Your task to perform on an android device: toggle airplane mode Image 0: 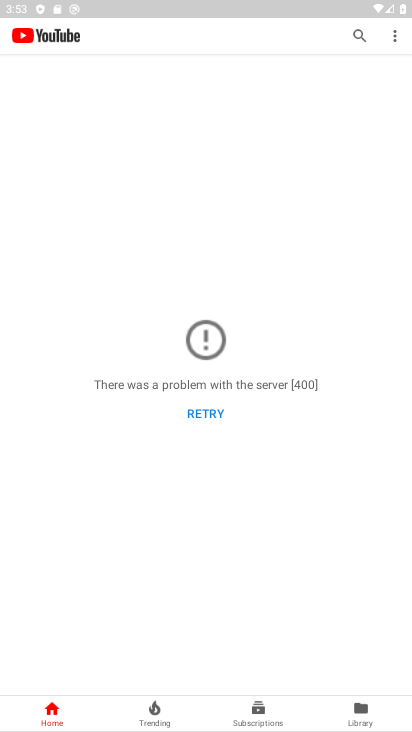
Step 0: press back button
Your task to perform on an android device: toggle airplane mode Image 1: 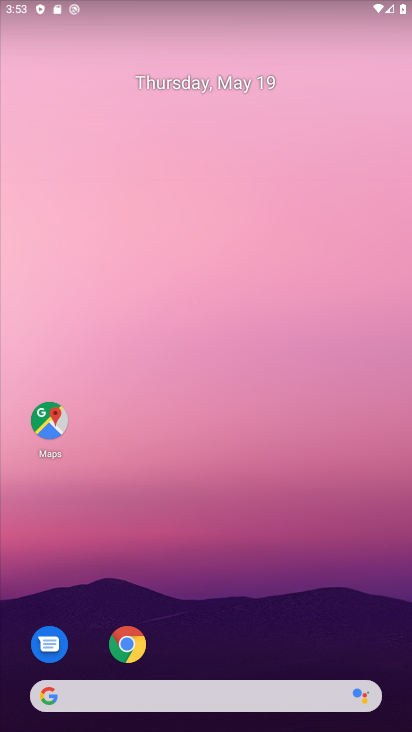
Step 1: drag from (270, 468) to (238, 8)
Your task to perform on an android device: toggle airplane mode Image 2: 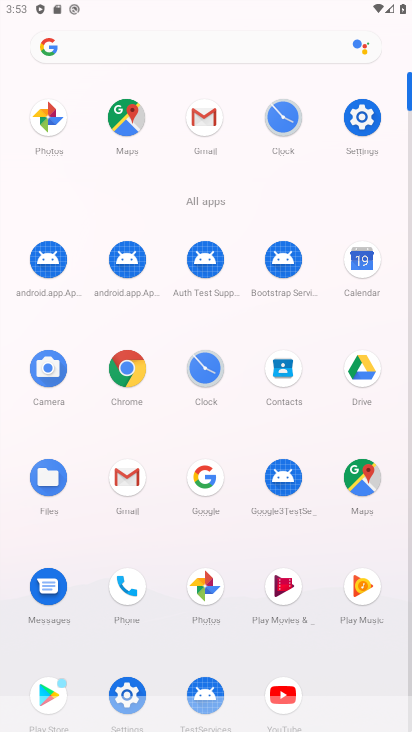
Step 2: drag from (1, 595) to (1, 329)
Your task to perform on an android device: toggle airplane mode Image 3: 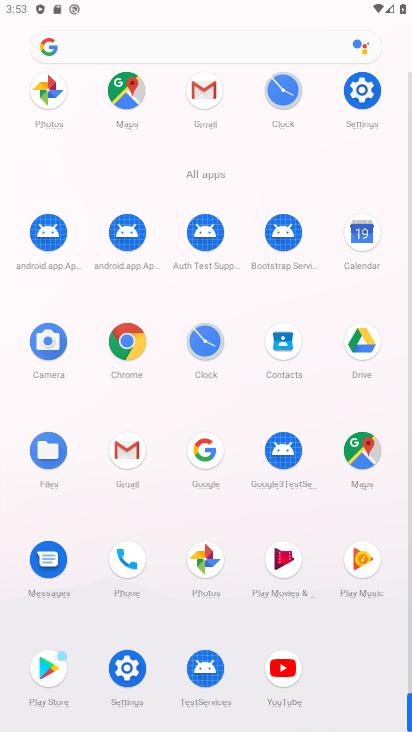
Step 3: click (126, 667)
Your task to perform on an android device: toggle airplane mode Image 4: 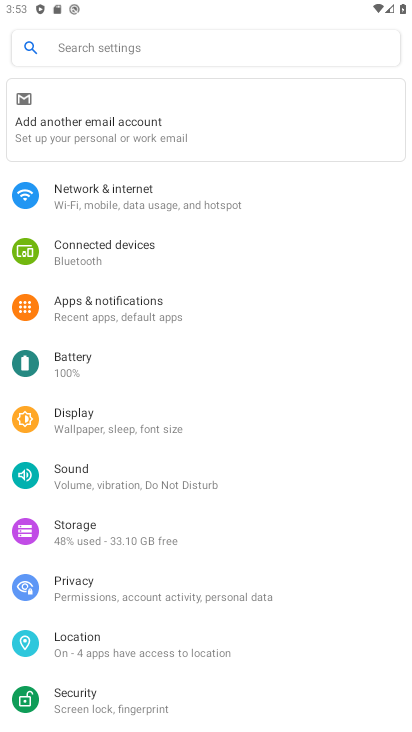
Step 4: click (141, 190)
Your task to perform on an android device: toggle airplane mode Image 5: 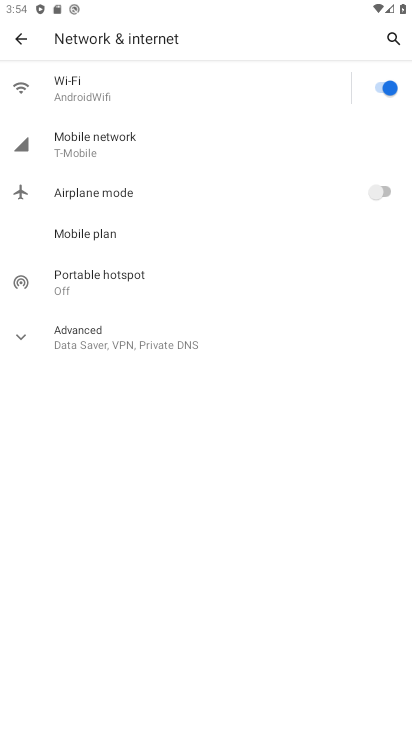
Step 5: click (36, 332)
Your task to perform on an android device: toggle airplane mode Image 6: 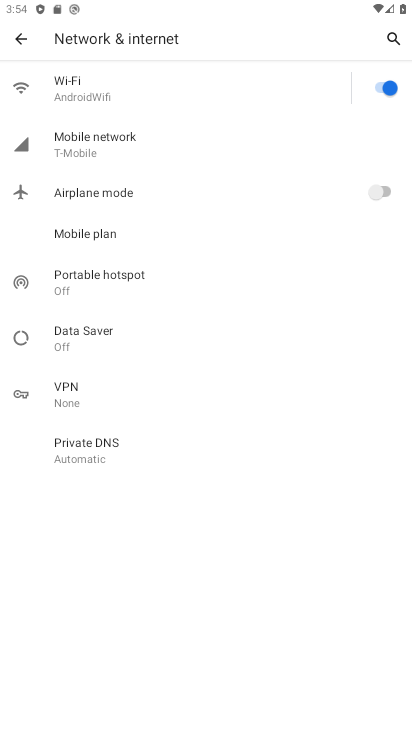
Step 6: click (384, 196)
Your task to perform on an android device: toggle airplane mode Image 7: 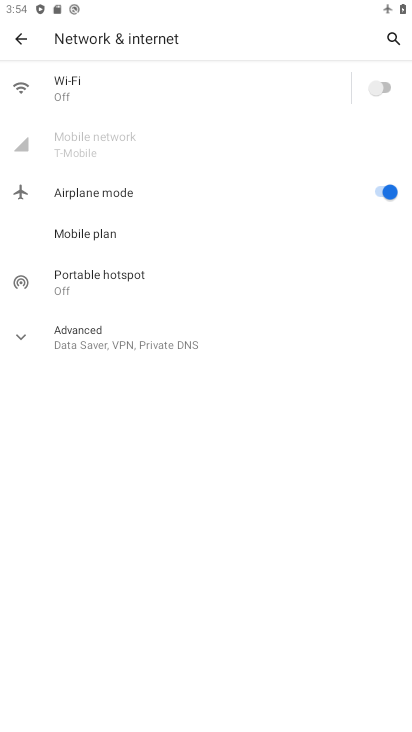
Step 7: task complete